Your task to perform on an android device: uninstall "Nova Launcher" Image 0: 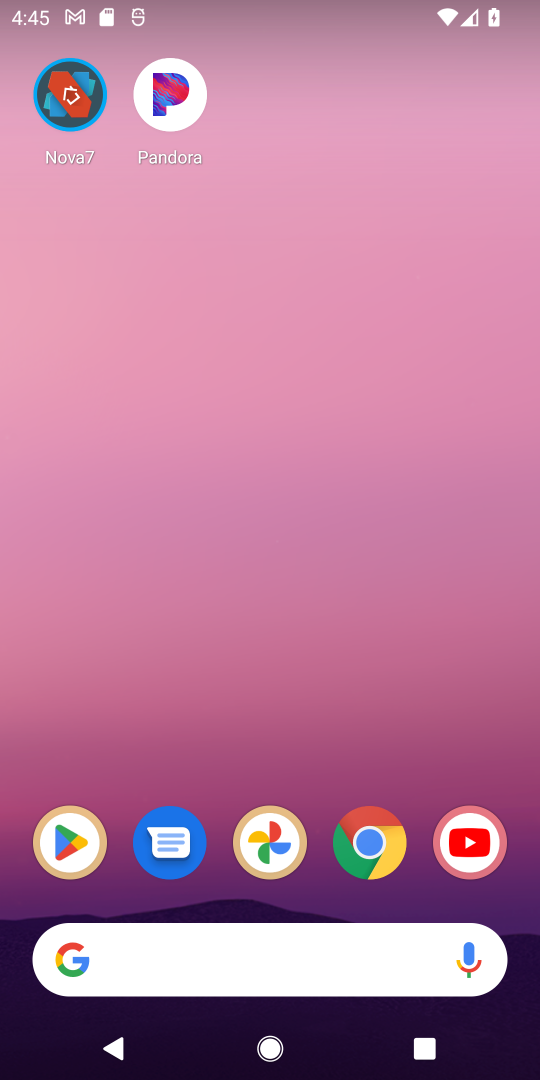
Step 0: drag from (249, 710) to (146, 456)
Your task to perform on an android device: uninstall "Nova Launcher" Image 1: 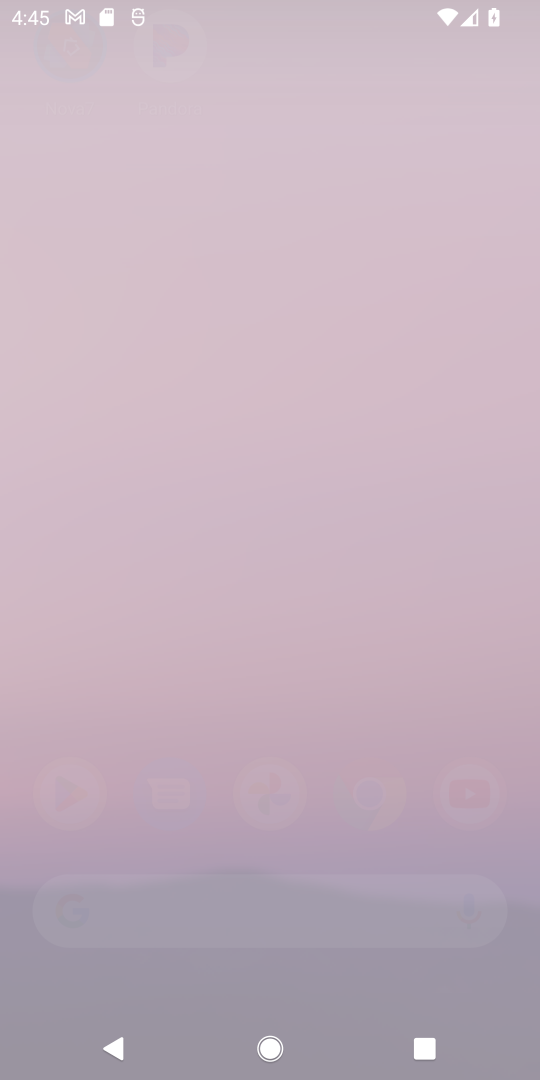
Step 1: drag from (249, 810) to (243, 209)
Your task to perform on an android device: uninstall "Nova Launcher" Image 2: 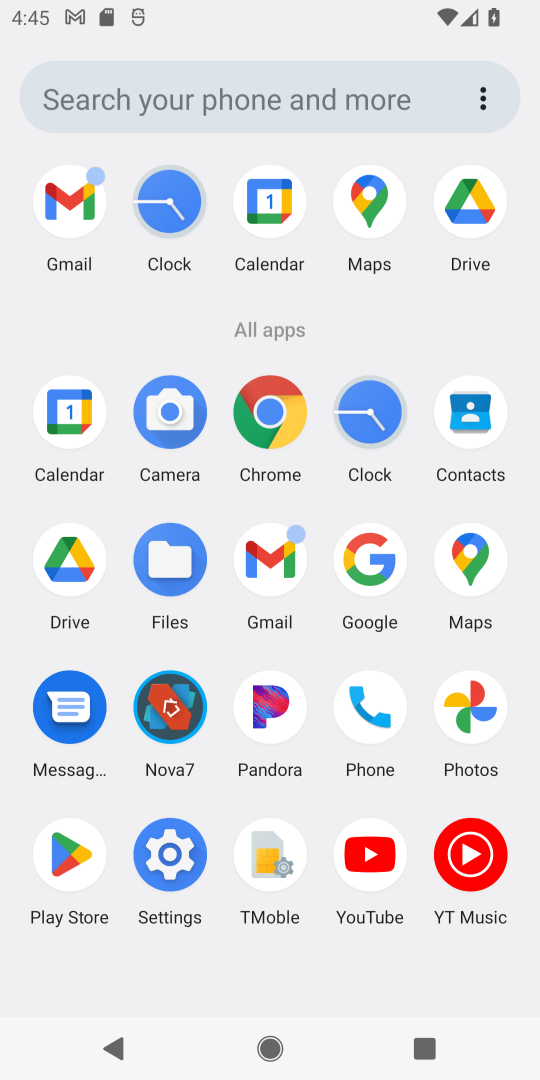
Step 2: drag from (269, 716) to (242, 117)
Your task to perform on an android device: uninstall "Nova Launcher" Image 3: 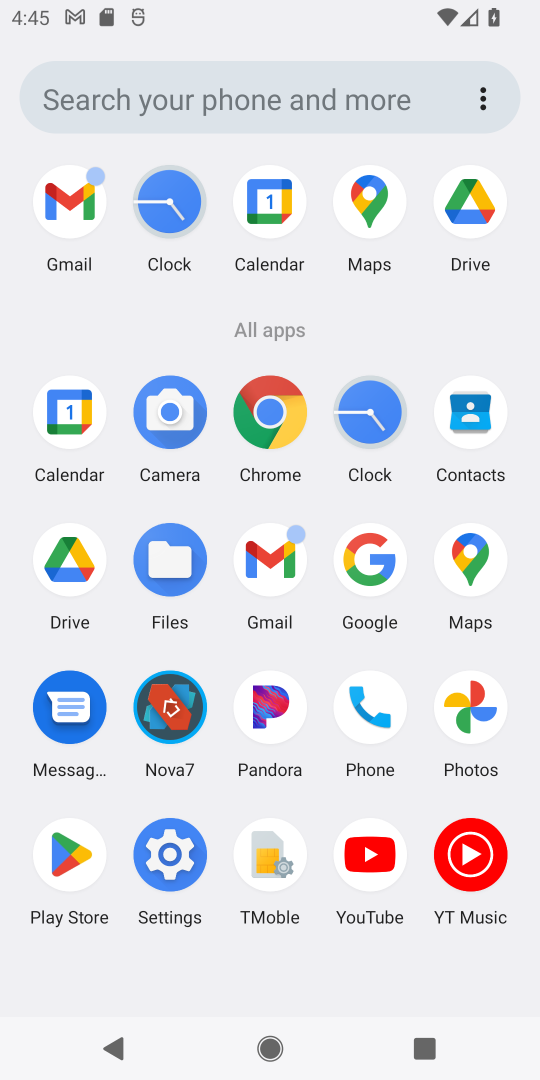
Step 3: click (71, 860)
Your task to perform on an android device: uninstall "Nova Launcher" Image 4: 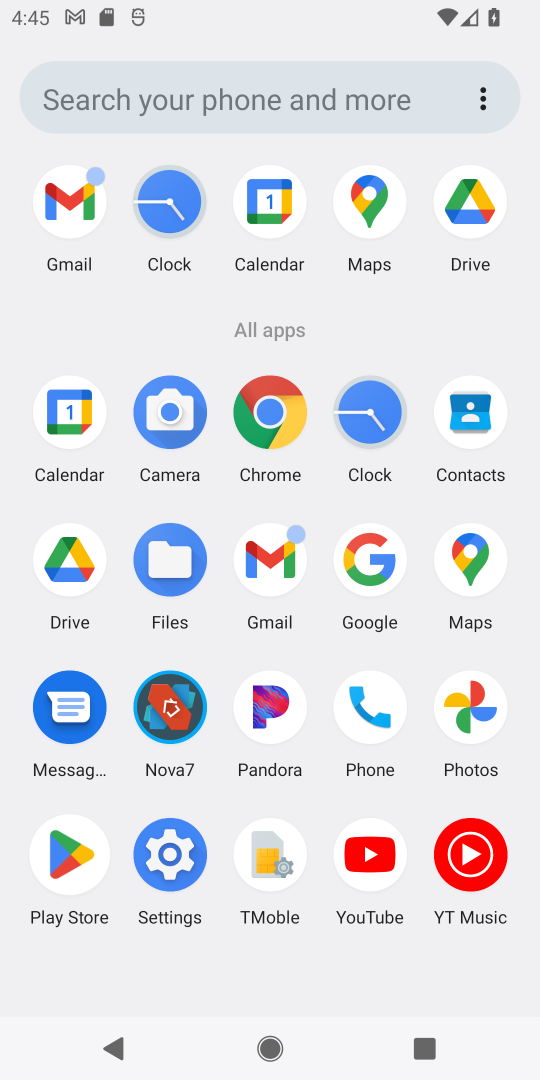
Step 4: click (71, 858)
Your task to perform on an android device: uninstall "Nova Launcher" Image 5: 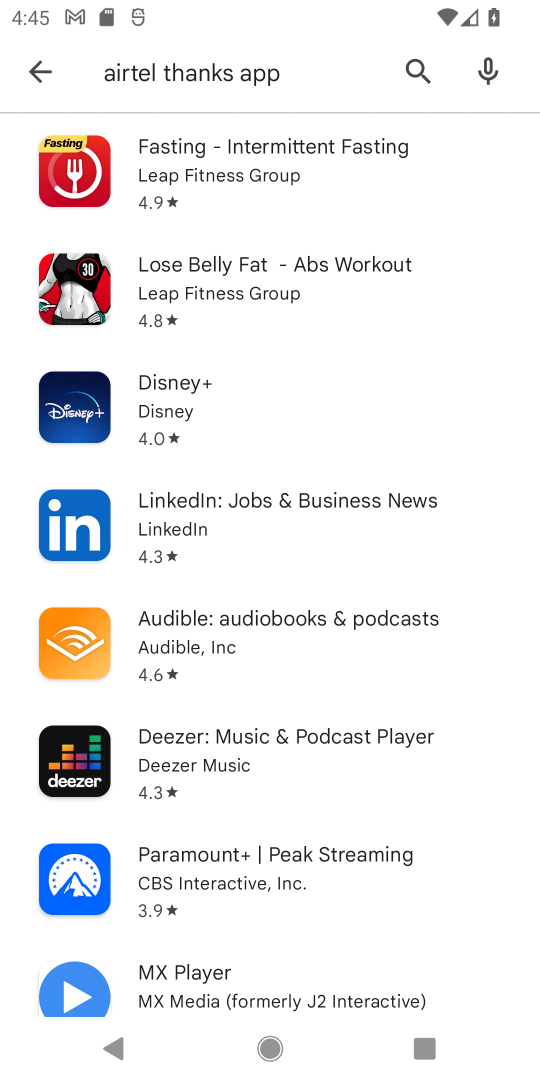
Step 5: click (36, 68)
Your task to perform on an android device: uninstall "Nova Launcher" Image 6: 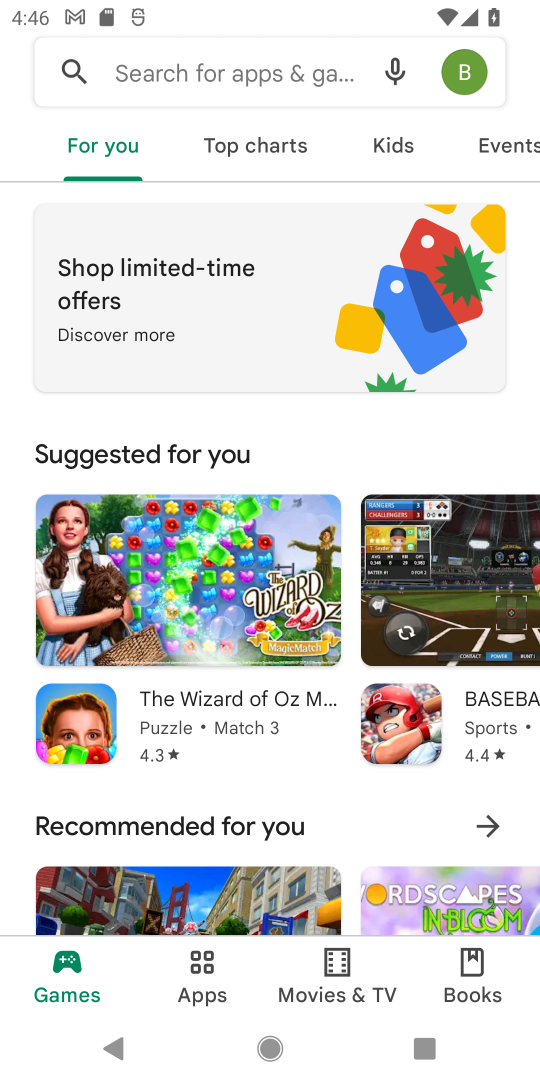
Step 6: click (174, 65)
Your task to perform on an android device: uninstall "Nova Launcher" Image 7: 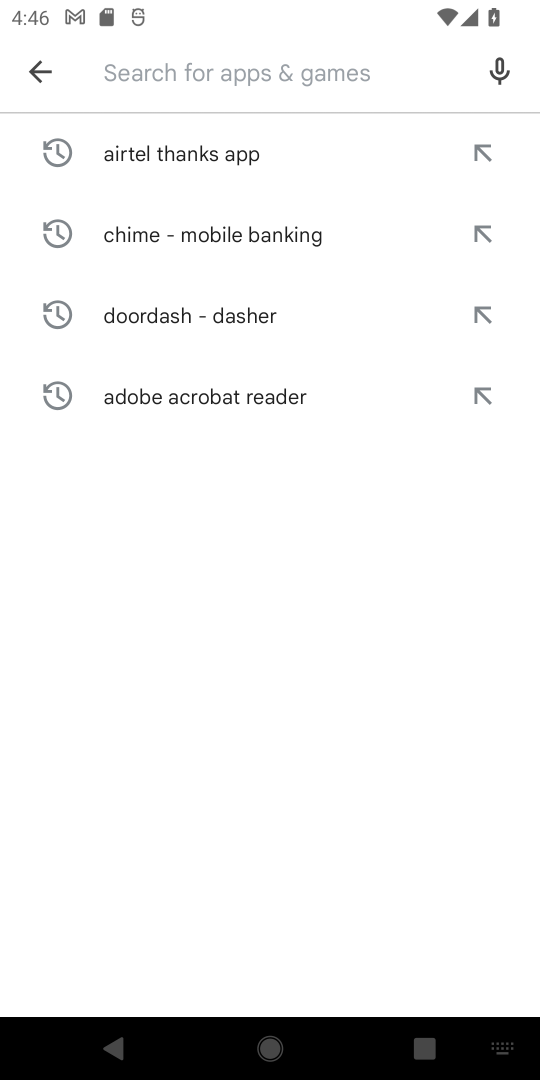
Step 7: click (138, 85)
Your task to perform on an android device: uninstall "Nova Launcher" Image 8: 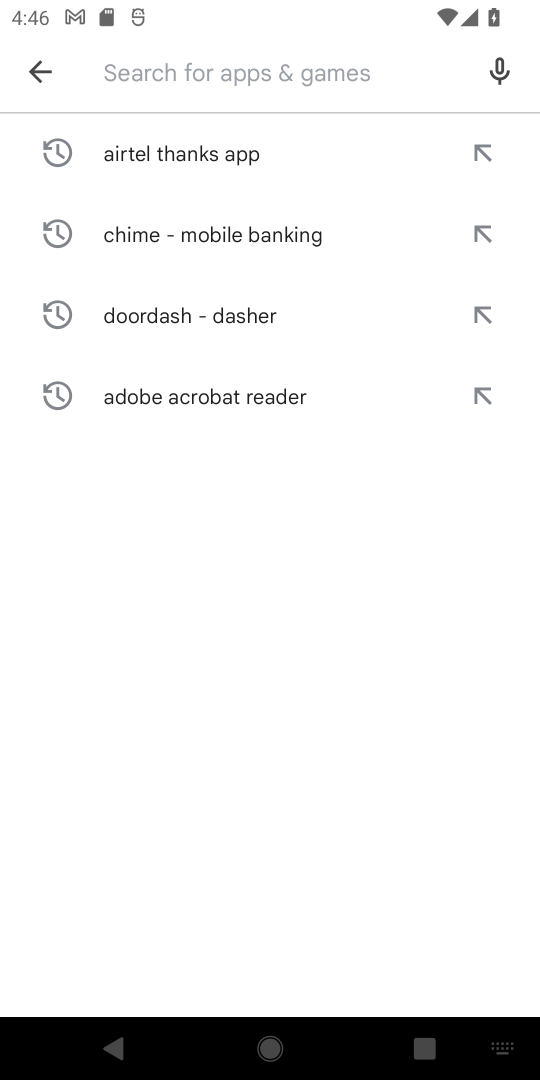
Step 8: type "Nova Launcher"
Your task to perform on an android device: uninstall "Nova Launcher" Image 9: 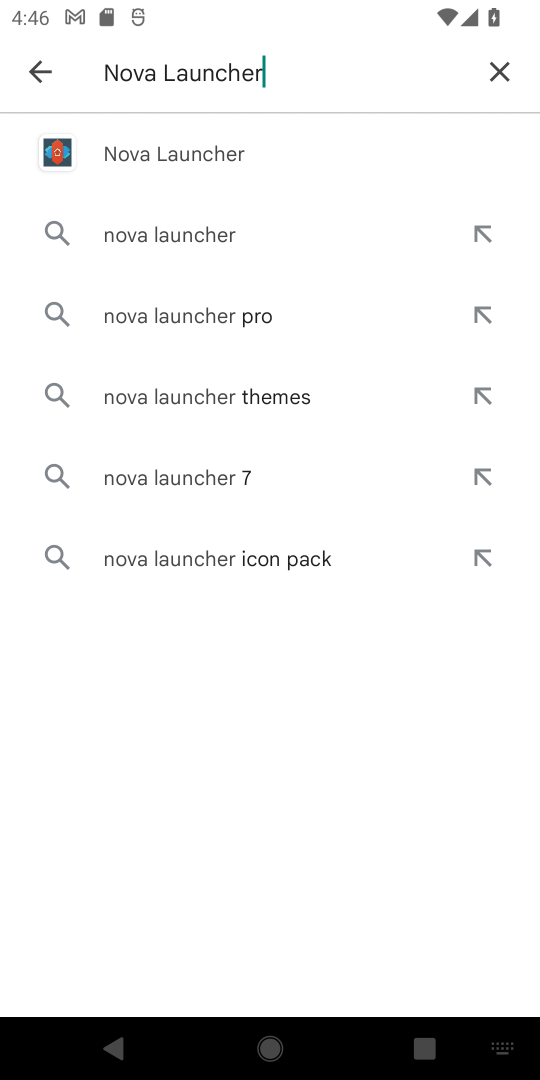
Step 9: click (128, 157)
Your task to perform on an android device: uninstall "Nova Launcher" Image 10: 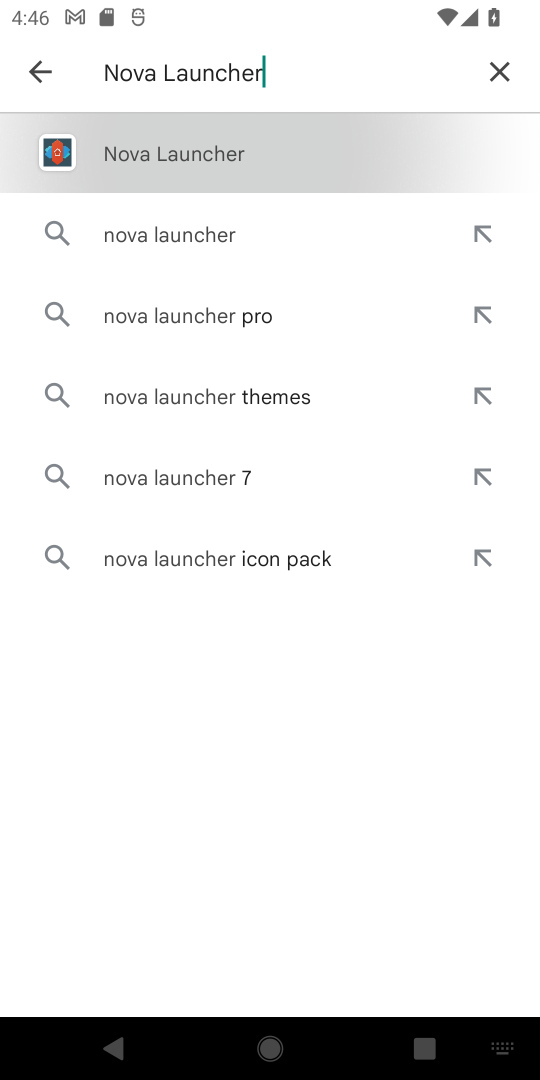
Step 10: click (128, 154)
Your task to perform on an android device: uninstall "Nova Launcher" Image 11: 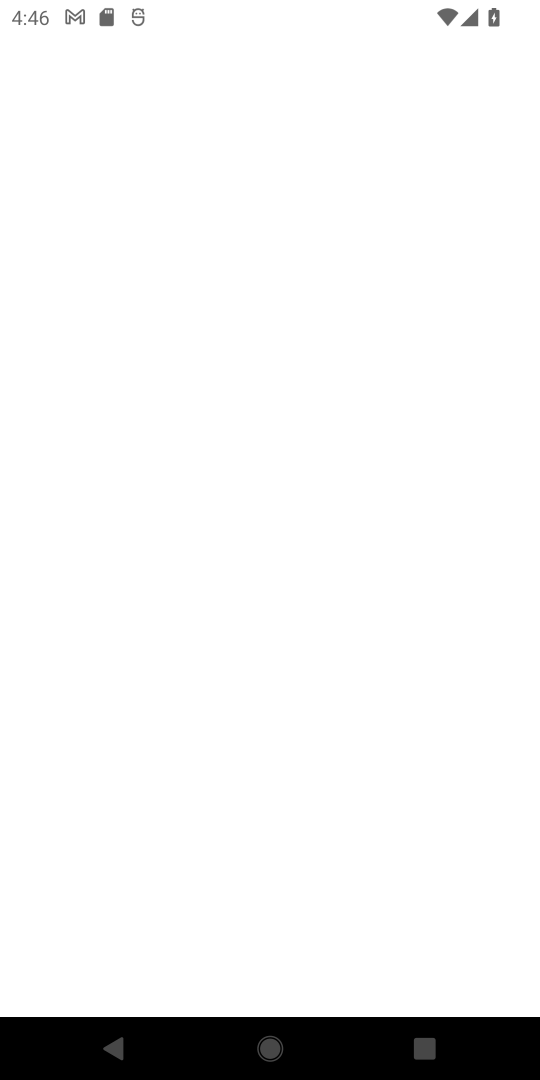
Step 11: click (128, 154)
Your task to perform on an android device: uninstall "Nova Launcher" Image 12: 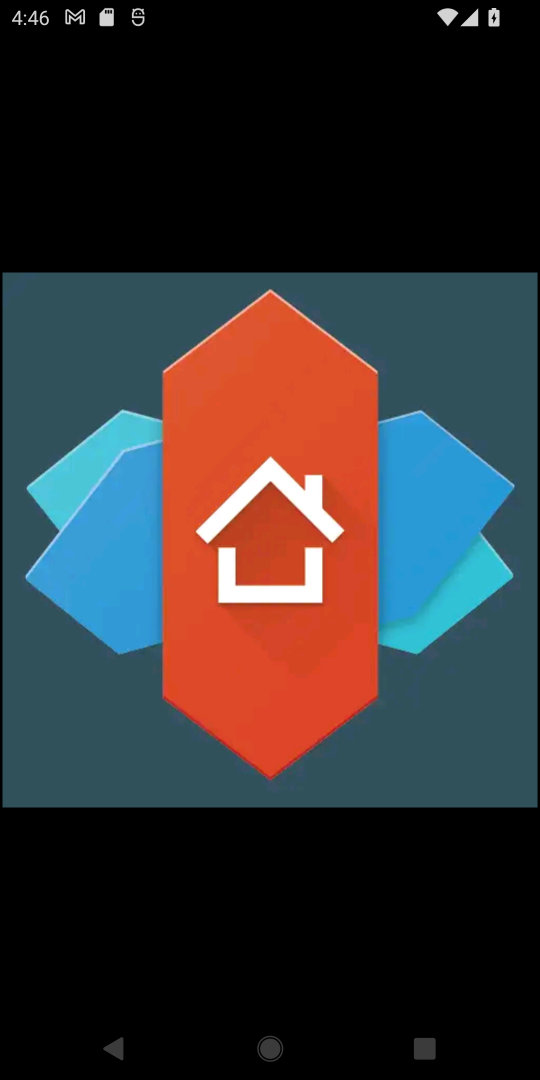
Step 12: click (36, 78)
Your task to perform on an android device: uninstall "Nova Launcher" Image 13: 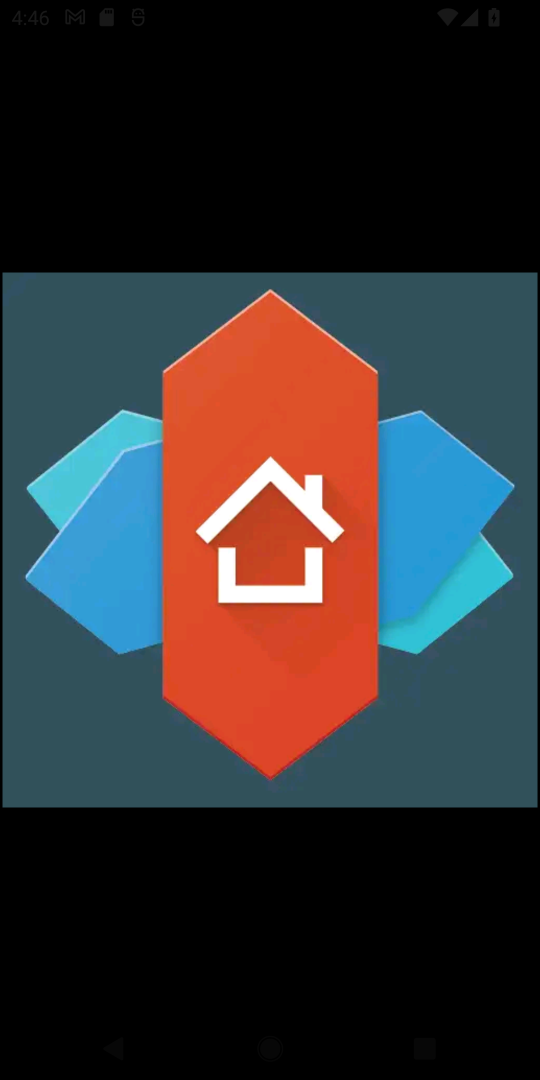
Step 13: click (36, 78)
Your task to perform on an android device: uninstall "Nova Launcher" Image 14: 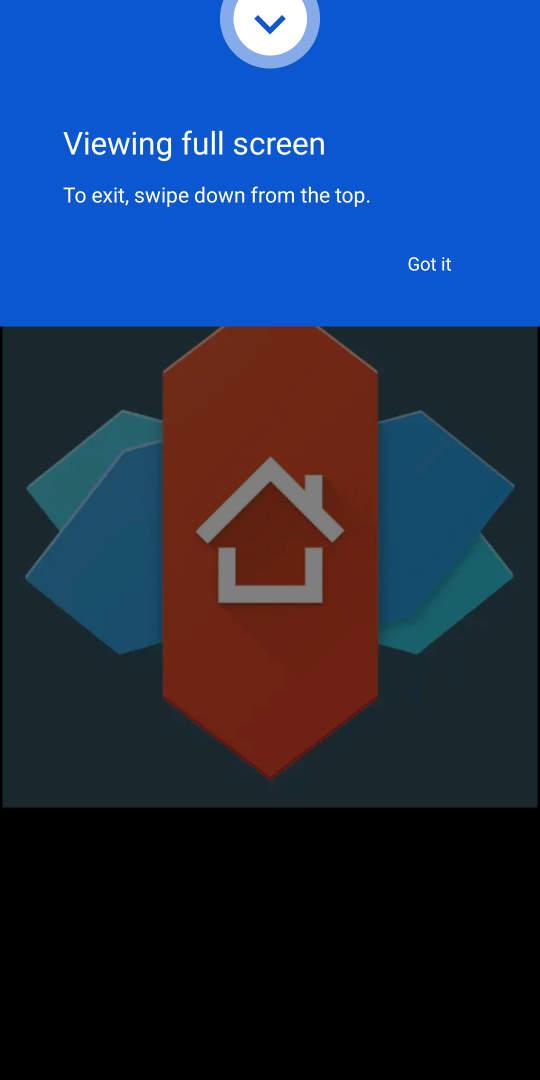
Step 14: click (421, 266)
Your task to perform on an android device: uninstall "Nova Launcher" Image 15: 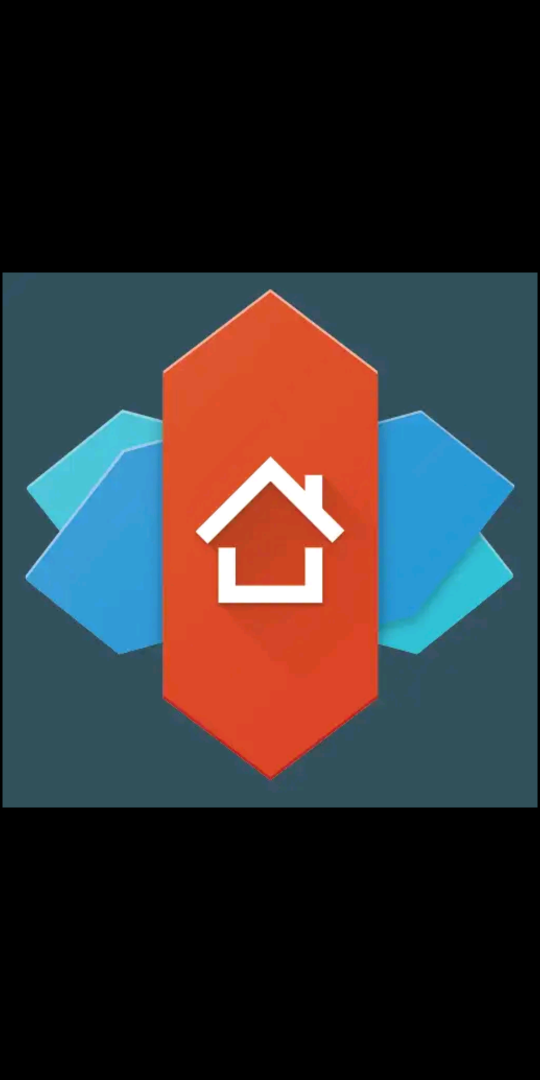
Step 15: click (425, 270)
Your task to perform on an android device: uninstall "Nova Launcher" Image 16: 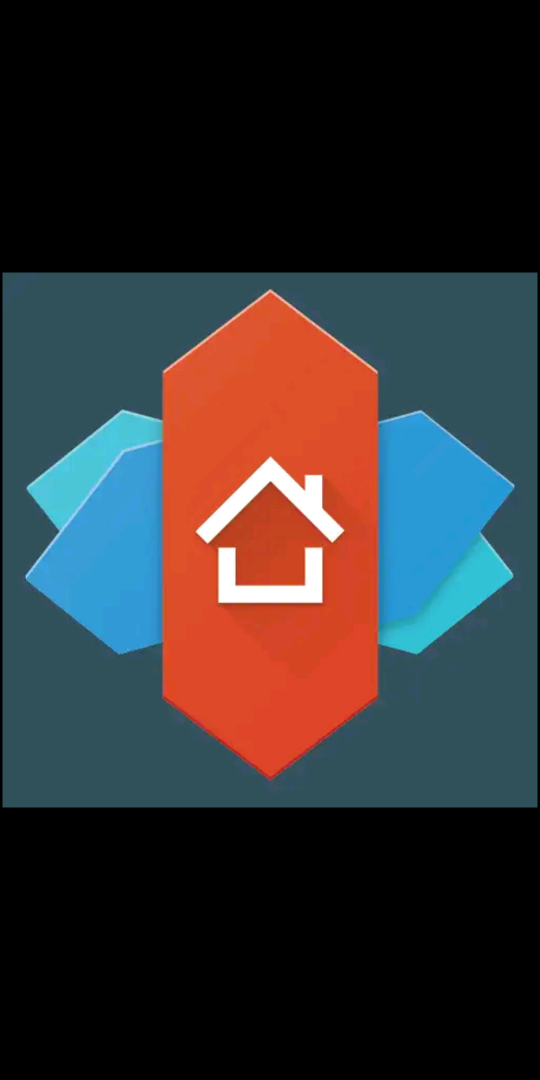
Step 16: click (441, 259)
Your task to perform on an android device: uninstall "Nova Launcher" Image 17: 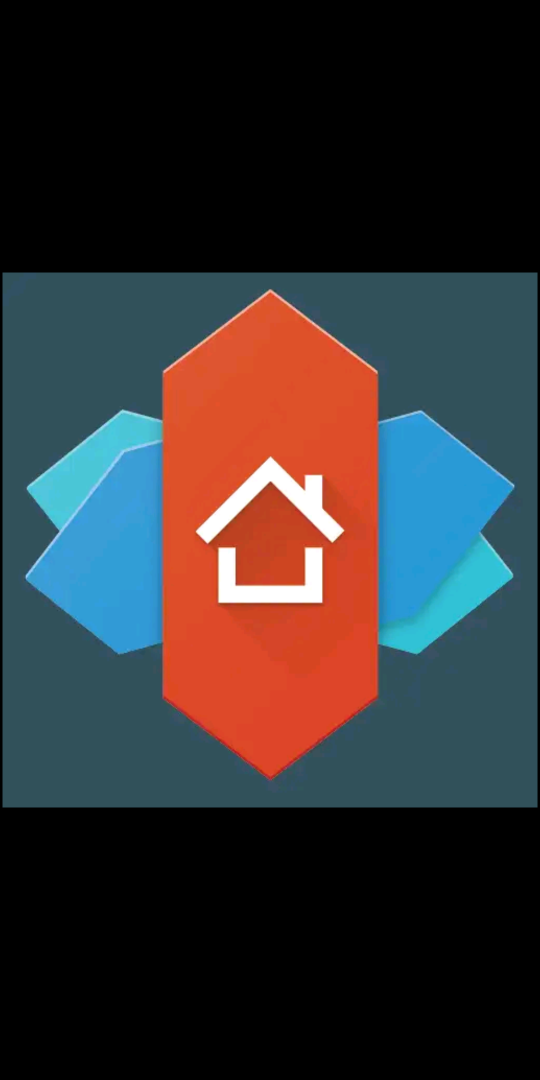
Step 17: click (137, 167)
Your task to perform on an android device: uninstall "Nova Launcher" Image 18: 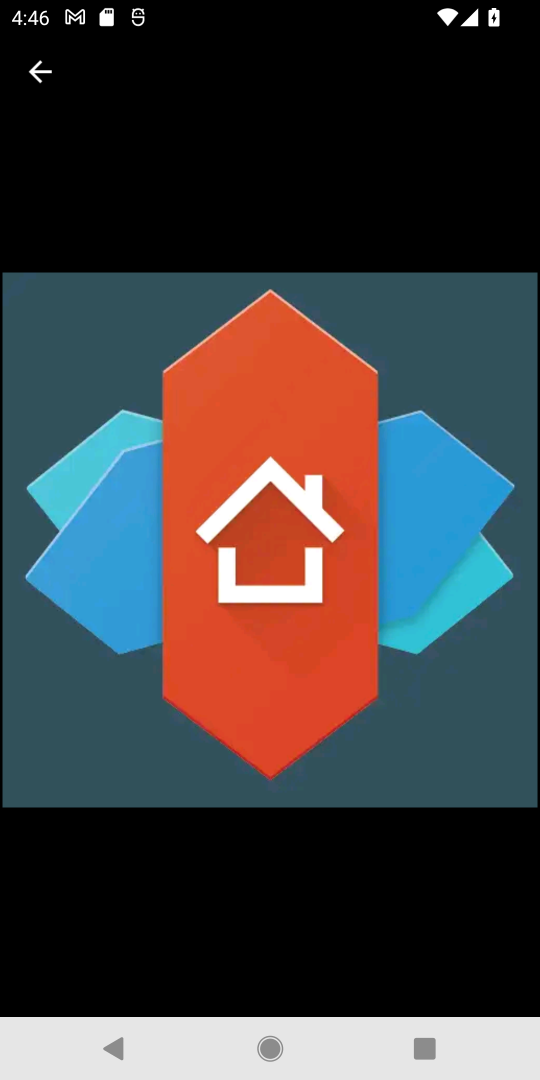
Step 18: click (31, 81)
Your task to perform on an android device: uninstall "Nova Launcher" Image 19: 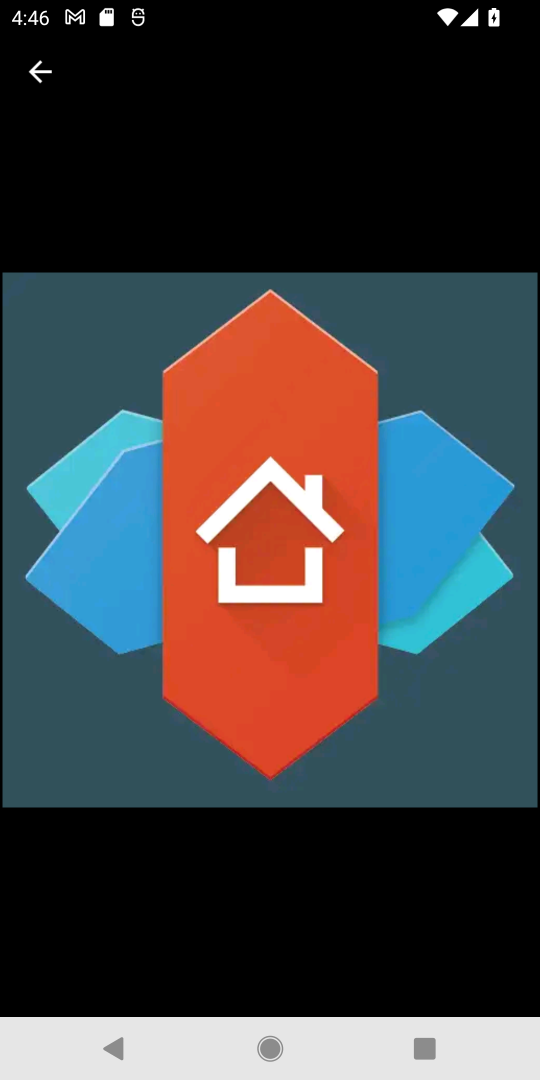
Step 19: click (32, 81)
Your task to perform on an android device: uninstall "Nova Launcher" Image 20: 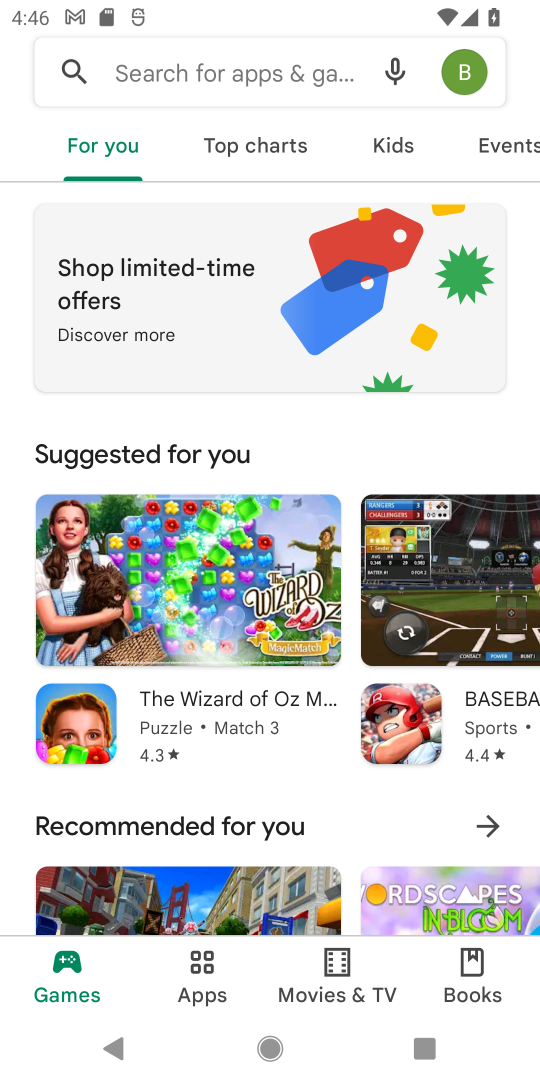
Step 20: click (131, 67)
Your task to perform on an android device: uninstall "Nova Launcher" Image 21: 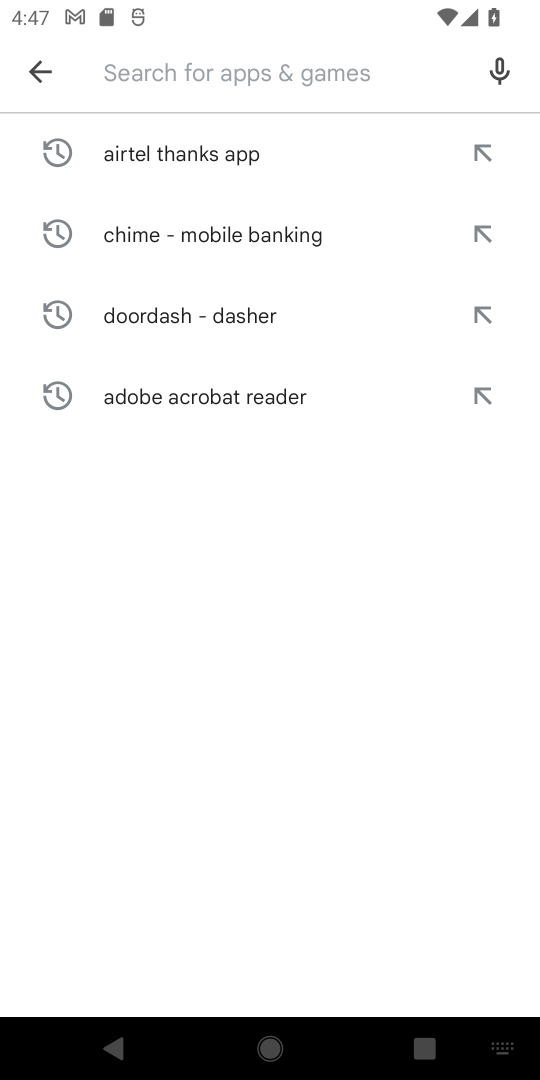
Step 21: type "Nova Launcher"
Your task to perform on an android device: uninstall "Nova Launcher" Image 22: 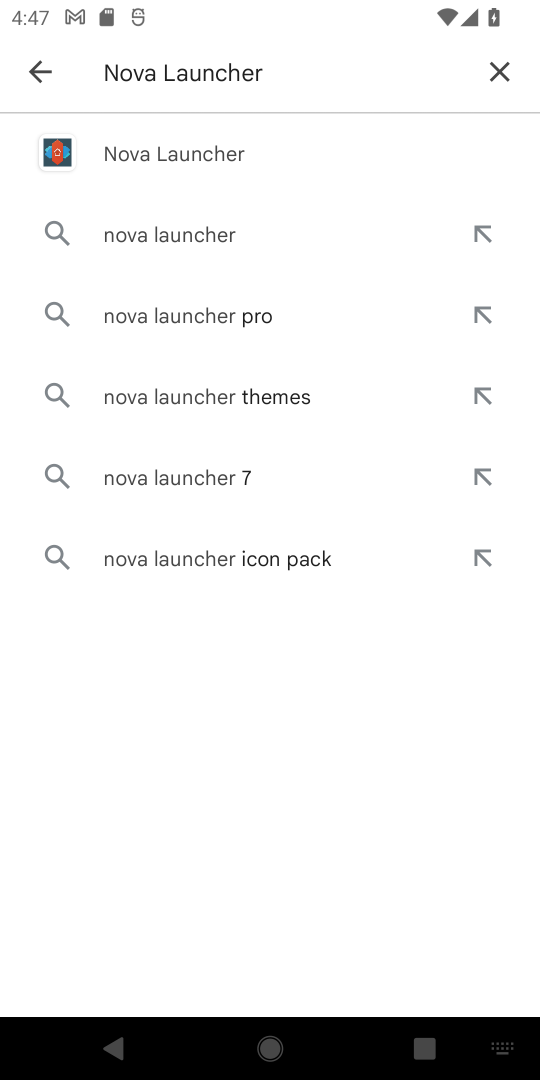
Step 22: click (171, 159)
Your task to perform on an android device: uninstall "Nova Launcher" Image 23: 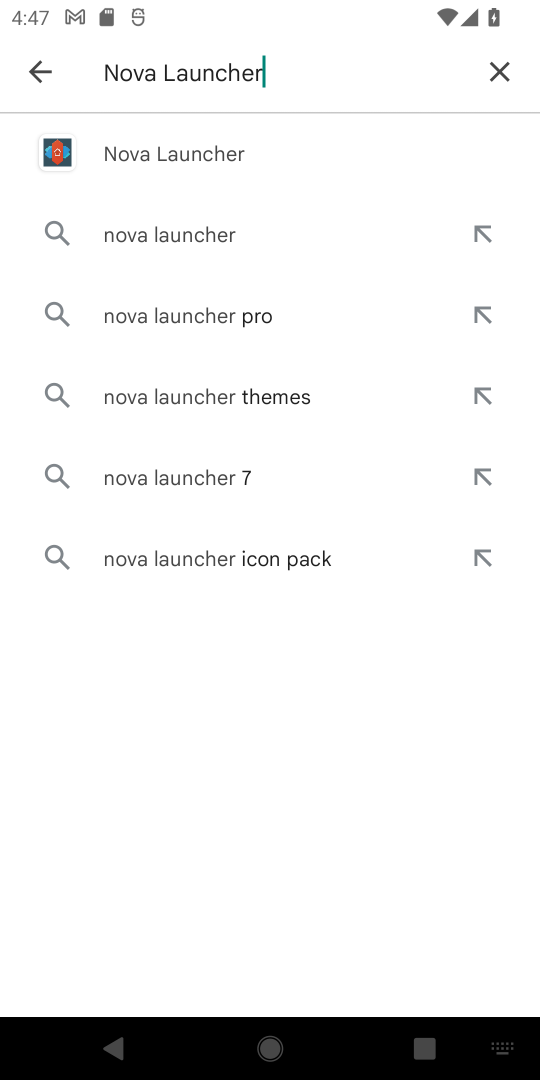
Step 23: click (161, 157)
Your task to perform on an android device: uninstall "Nova Launcher" Image 24: 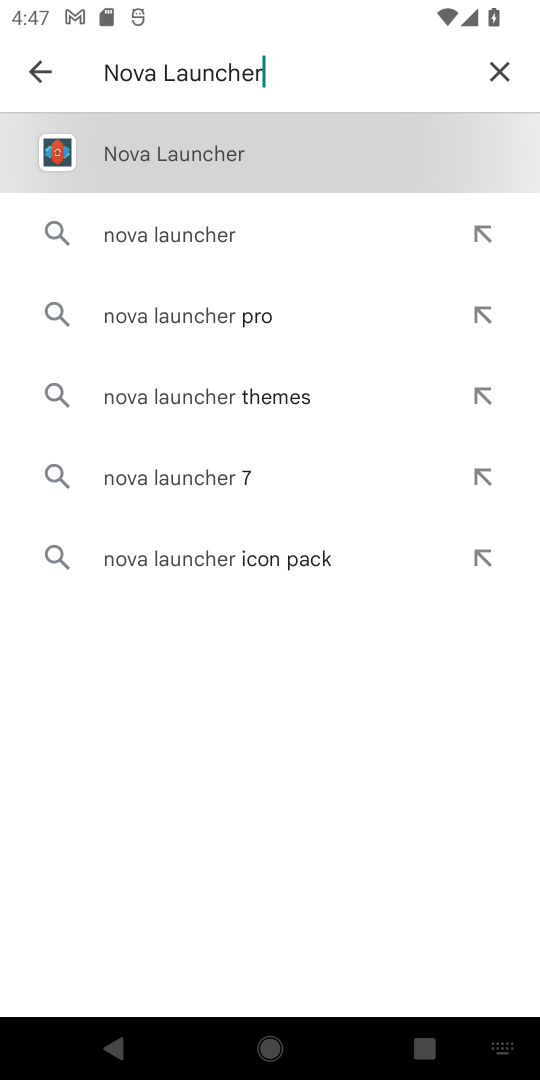
Step 24: click (160, 153)
Your task to perform on an android device: uninstall "Nova Launcher" Image 25: 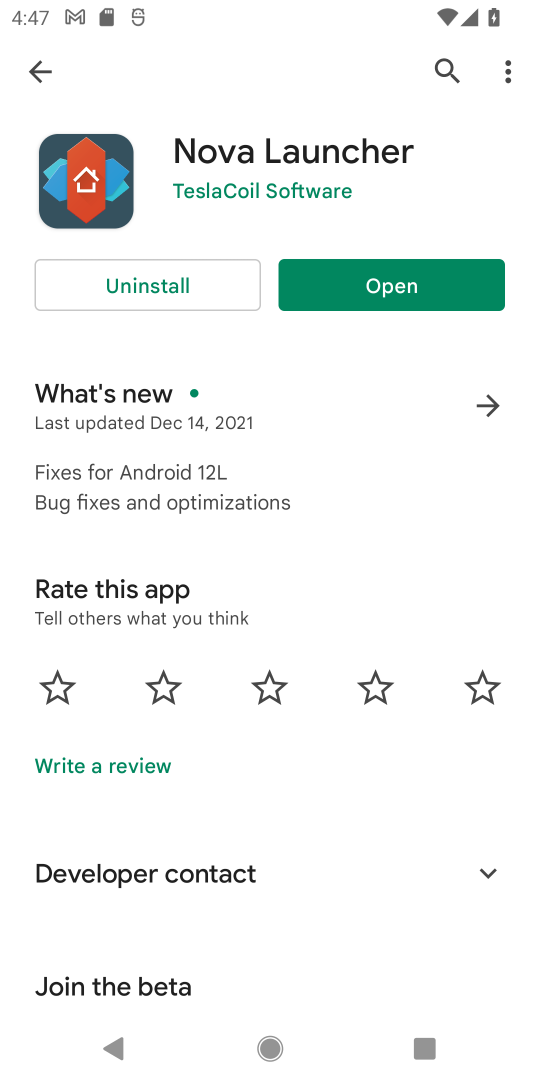
Step 25: click (184, 282)
Your task to perform on an android device: uninstall "Nova Launcher" Image 26: 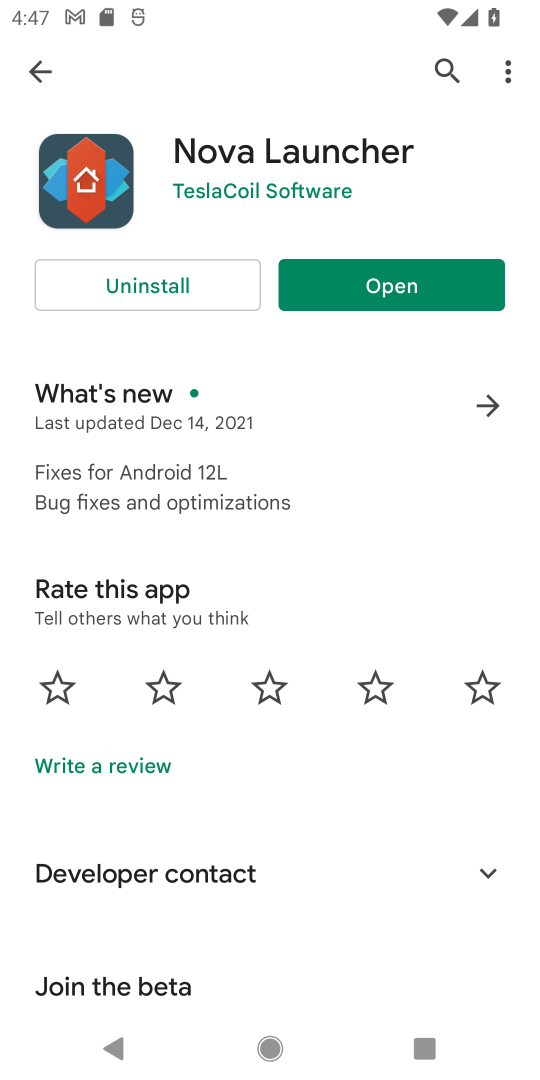
Step 26: click (184, 282)
Your task to perform on an android device: uninstall "Nova Launcher" Image 27: 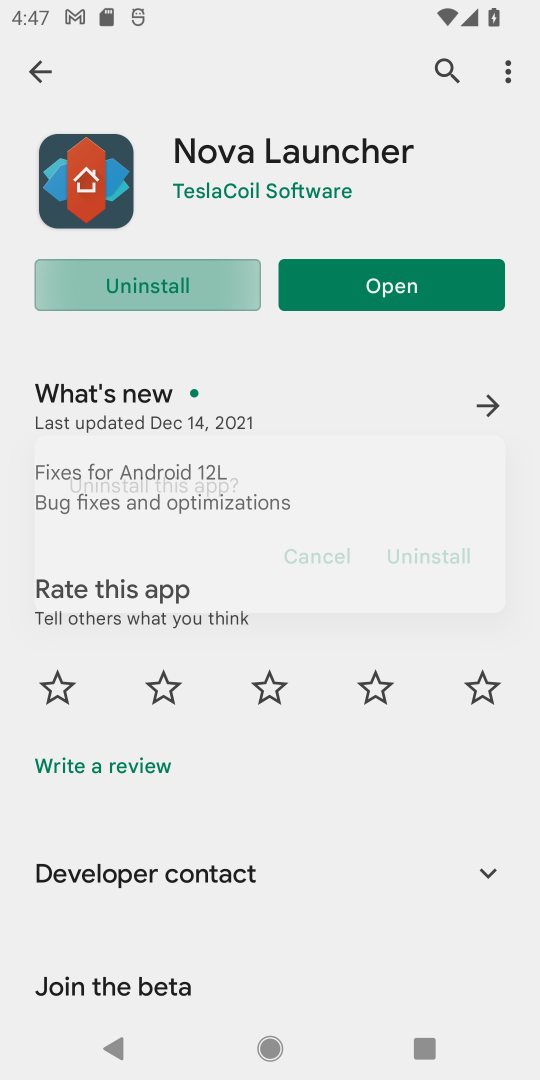
Step 27: click (184, 282)
Your task to perform on an android device: uninstall "Nova Launcher" Image 28: 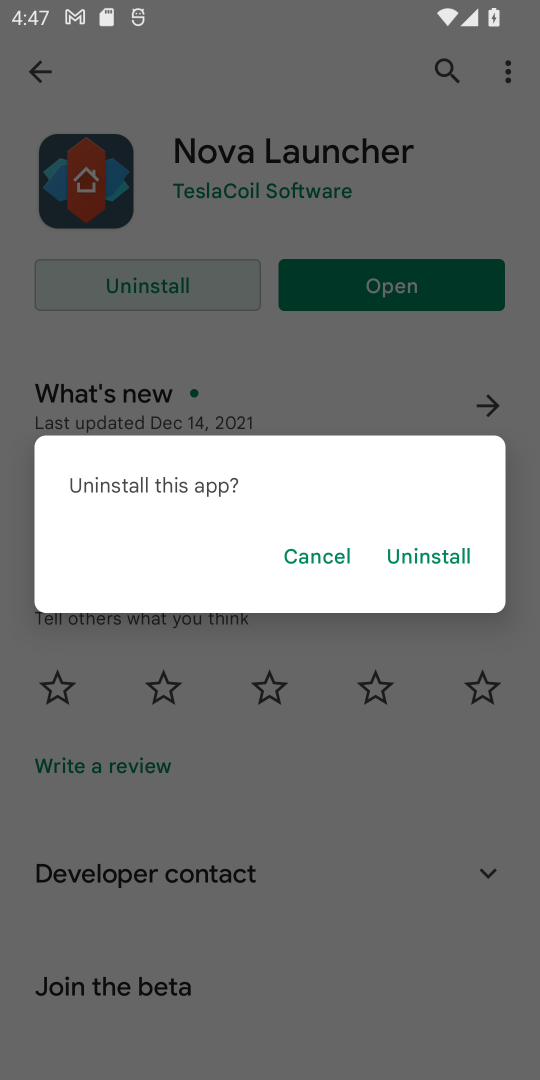
Step 28: click (184, 282)
Your task to perform on an android device: uninstall "Nova Launcher" Image 29: 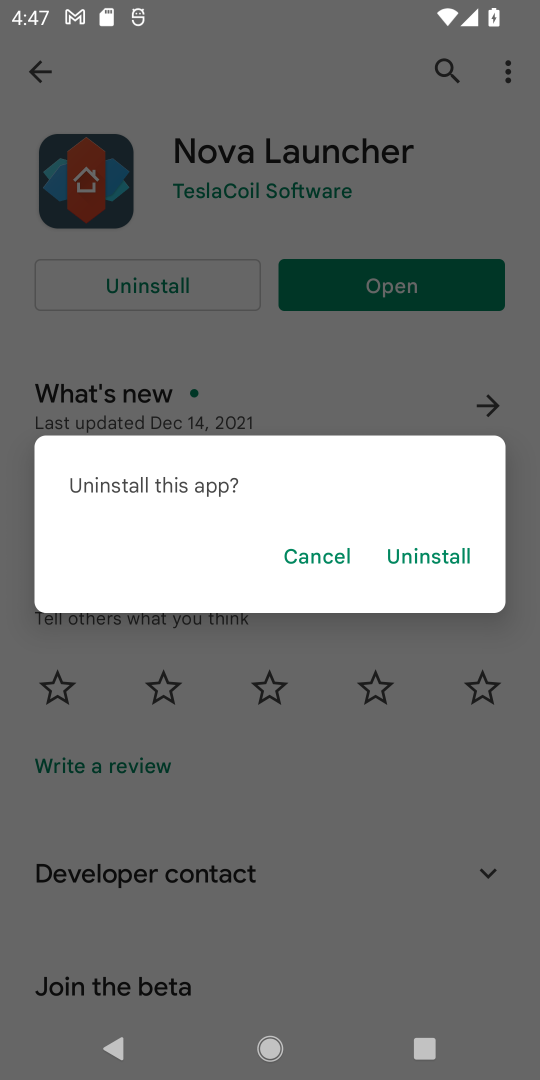
Step 29: click (431, 539)
Your task to perform on an android device: uninstall "Nova Launcher" Image 30: 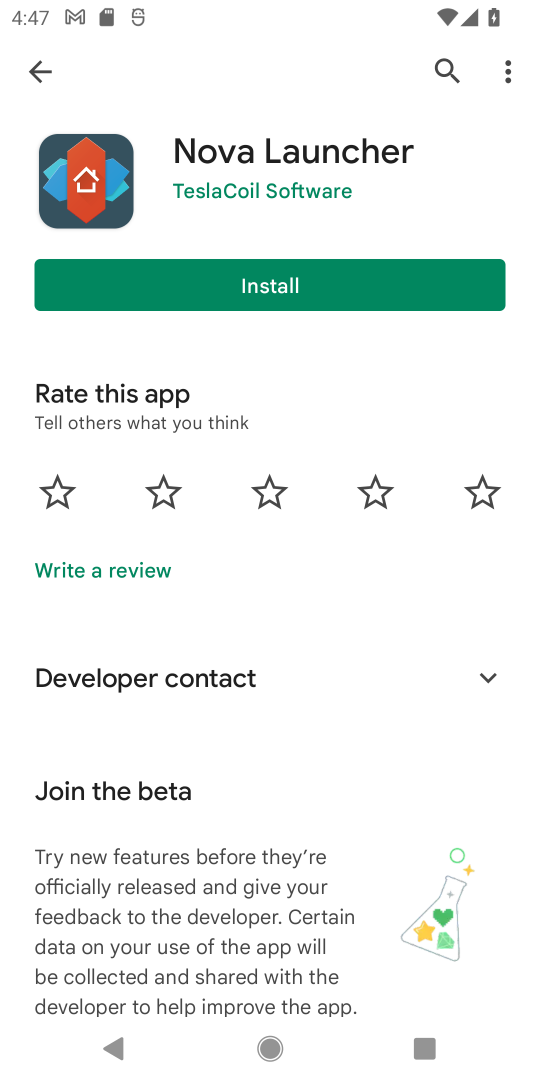
Step 30: task complete